Your task to perform on an android device: change your default location settings in chrome Image 0: 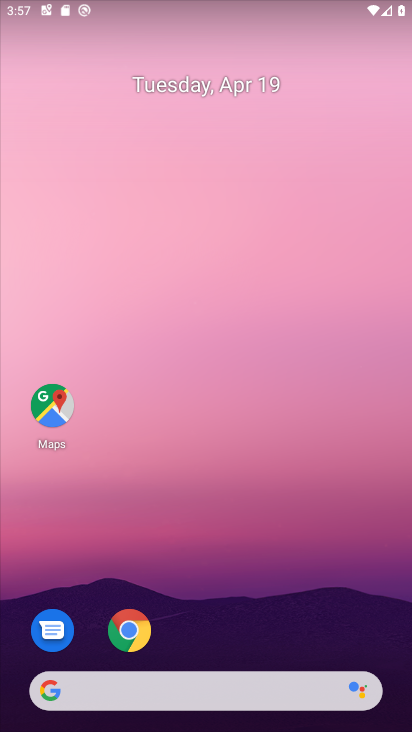
Step 0: click (139, 638)
Your task to perform on an android device: change your default location settings in chrome Image 1: 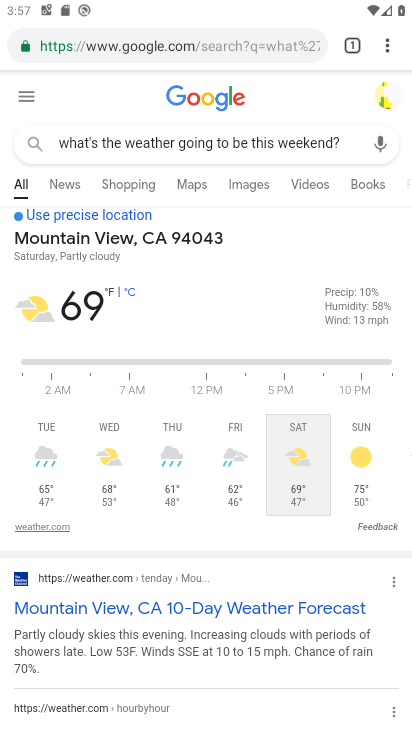
Step 1: drag from (391, 42) to (230, 565)
Your task to perform on an android device: change your default location settings in chrome Image 2: 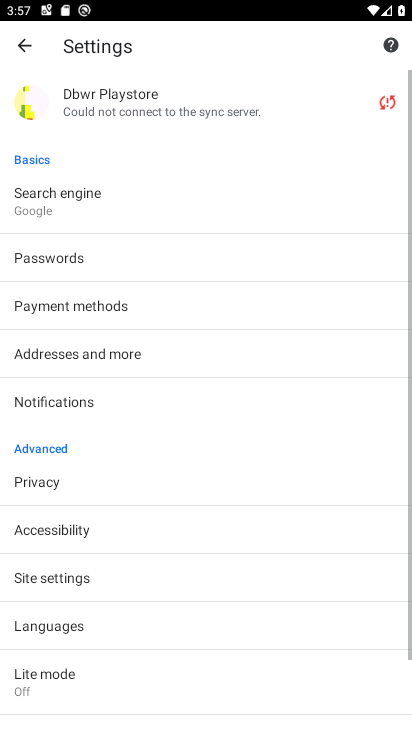
Step 2: click (91, 584)
Your task to perform on an android device: change your default location settings in chrome Image 3: 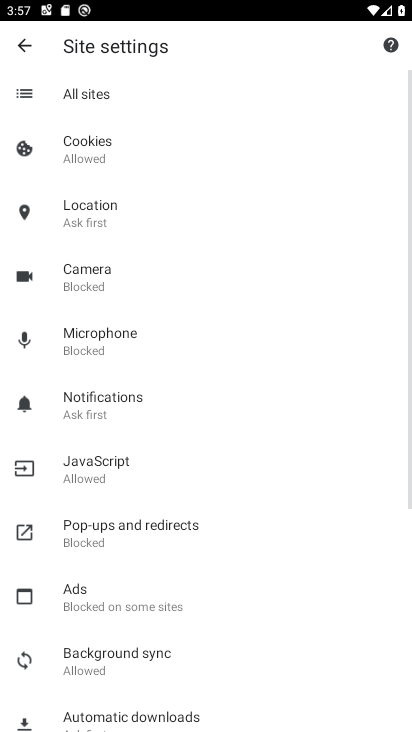
Step 3: click (131, 207)
Your task to perform on an android device: change your default location settings in chrome Image 4: 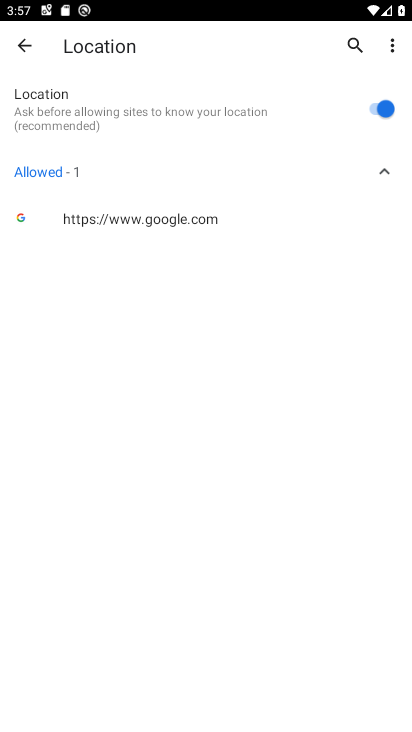
Step 4: click (391, 115)
Your task to perform on an android device: change your default location settings in chrome Image 5: 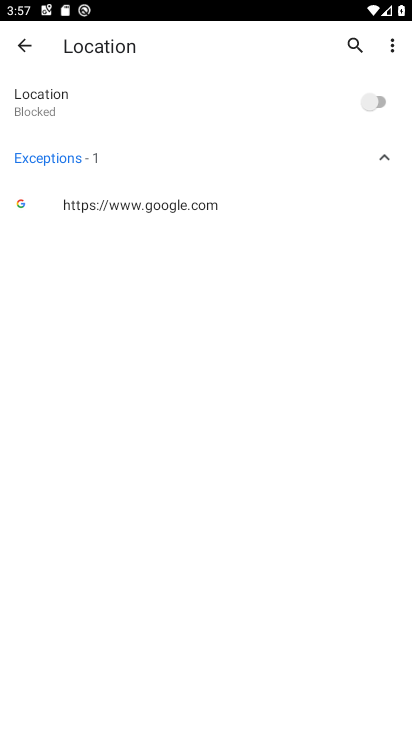
Step 5: task complete